Your task to perform on an android device: find photos in the google photos app Image 0: 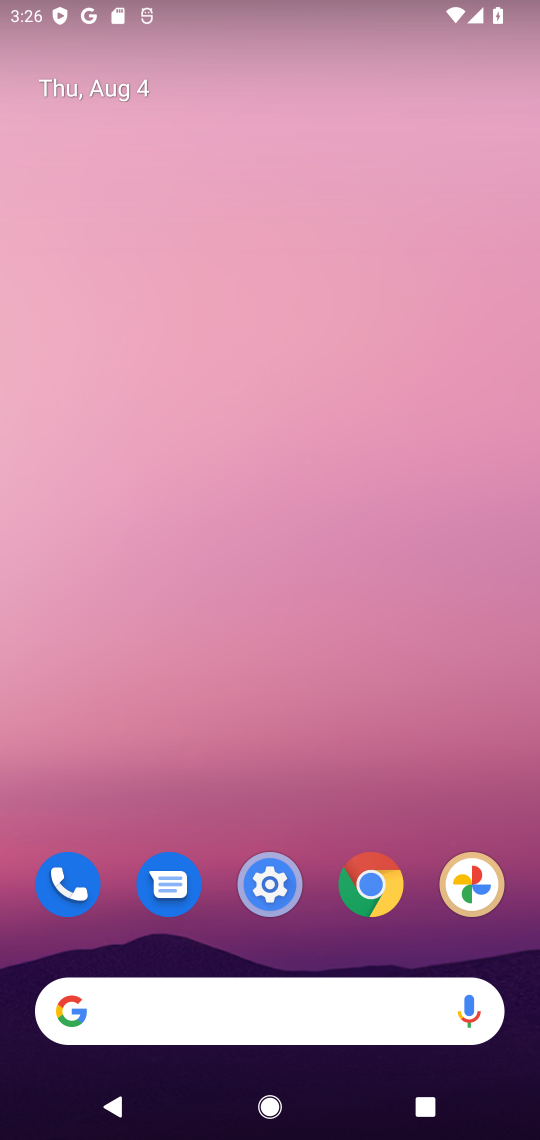
Step 0: drag from (213, 967) to (302, 373)
Your task to perform on an android device: find photos in the google photos app Image 1: 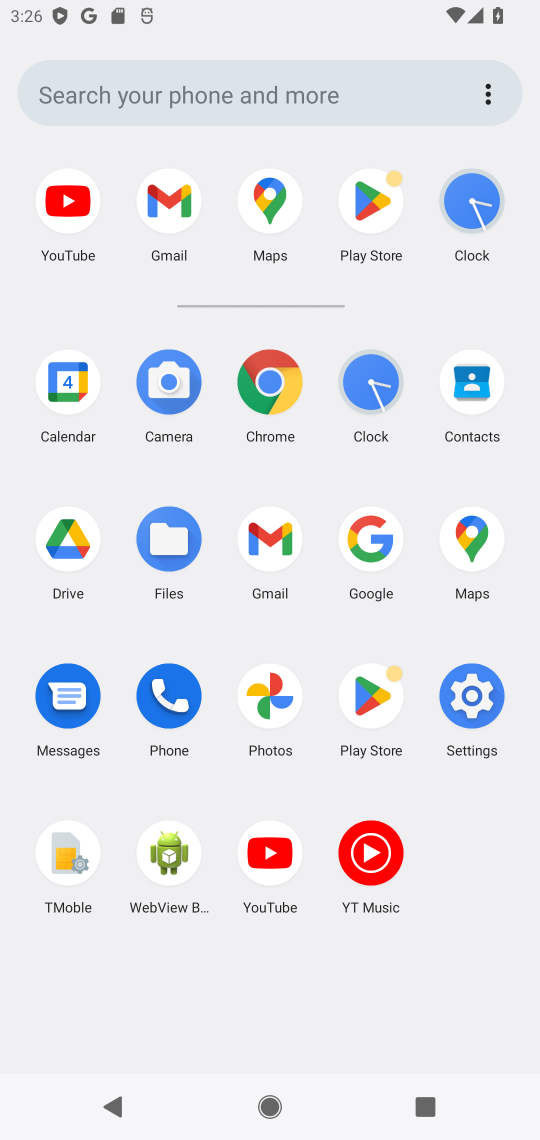
Step 1: click (276, 678)
Your task to perform on an android device: find photos in the google photos app Image 2: 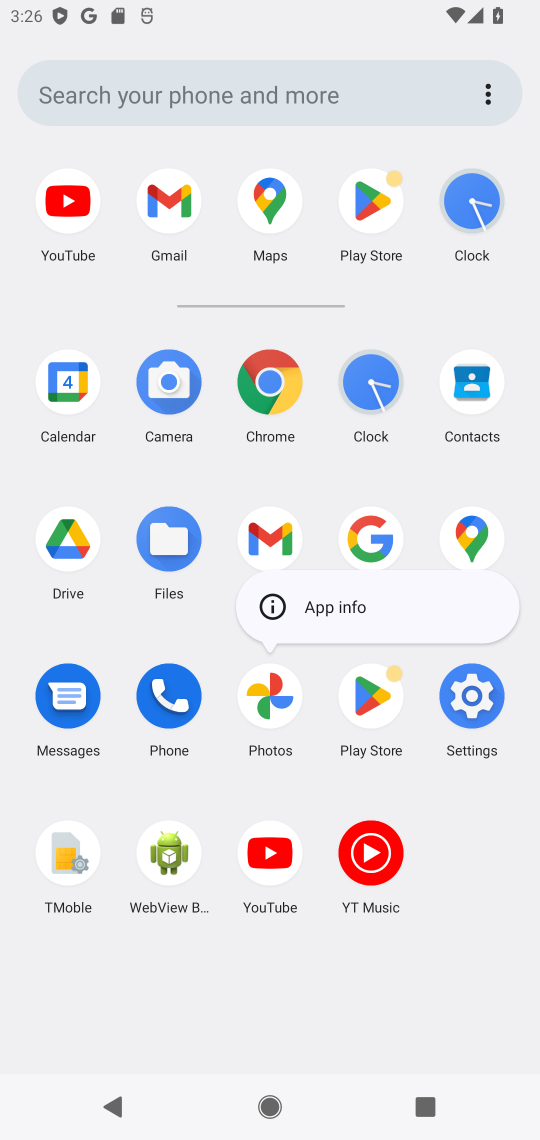
Step 2: click (316, 609)
Your task to perform on an android device: find photos in the google photos app Image 3: 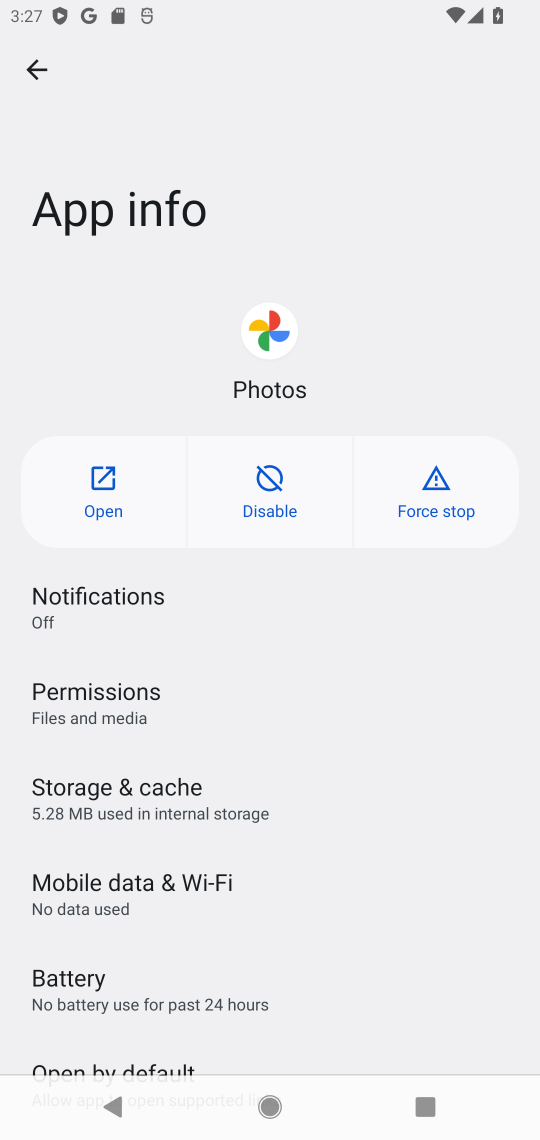
Step 3: click (118, 472)
Your task to perform on an android device: find photos in the google photos app Image 4: 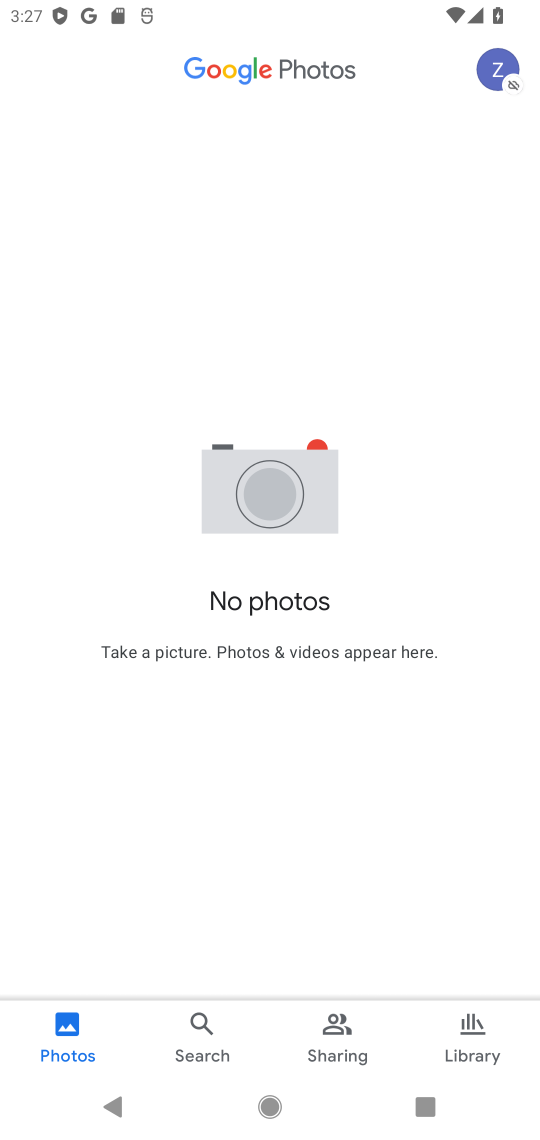
Step 4: task complete